Your task to perform on an android device: stop showing notifications on the lock screen Image 0: 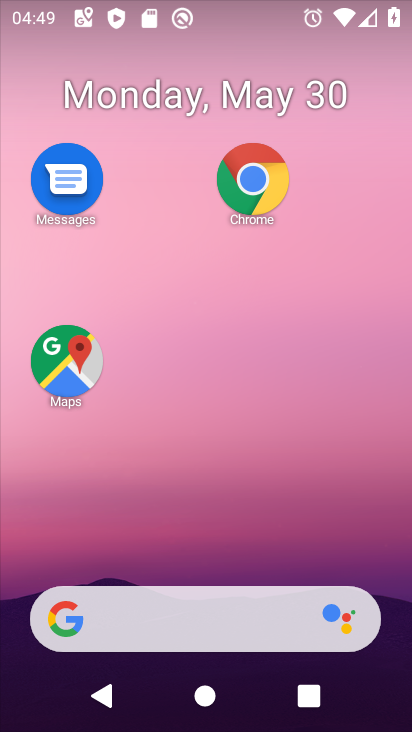
Step 0: drag from (166, 539) to (254, 0)
Your task to perform on an android device: stop showing notifications on the lock screen Image 1: 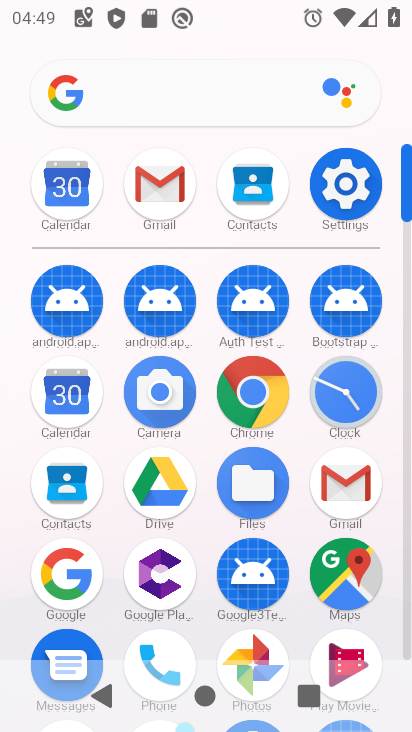
Step 1: click (345, 195)
Your task to perform on an android device: stop showing notifications on the lock screen Image 2: 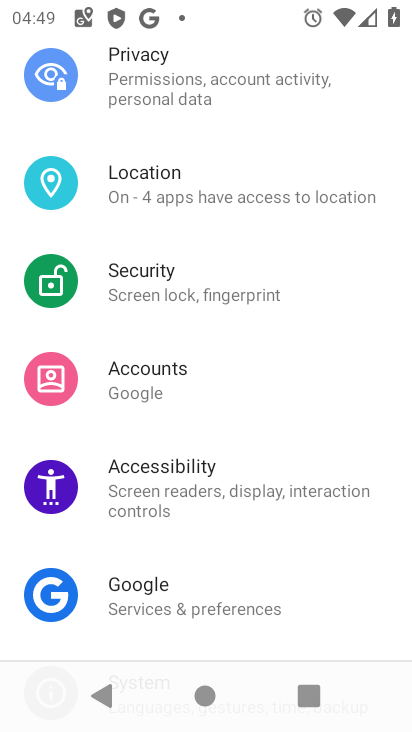
Step 2: drag from (254, 175) to (165, 638)
Your task to perform on an android device: stop showing notifications on the lock screen Image 3: 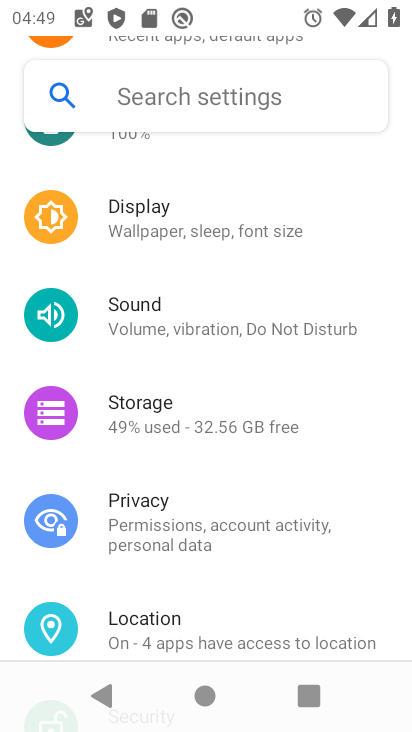
Step 3: drag from (175, 290) to (144, 641)
Your task to perform on an android device: stop showing notifications on the lock screen Image 4: 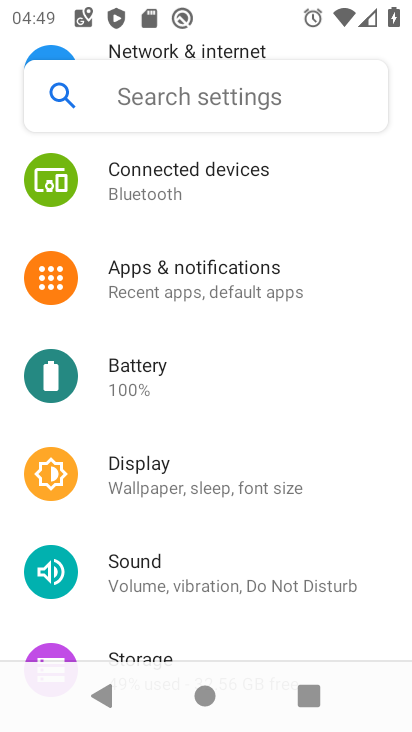
Step 4: click (178, 255)
Your task to perform on an android device: stop showing notifications on the lock screen Image 5: 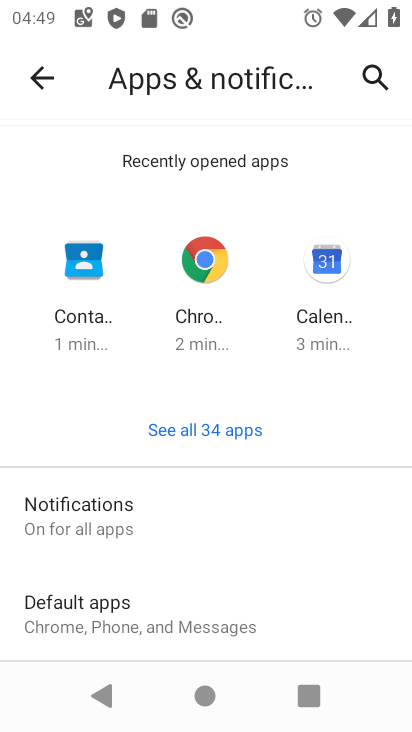
Step 5: click (81, 531)
Your task to perform on an android device: stop showing notifications on the lock screen Image 6: 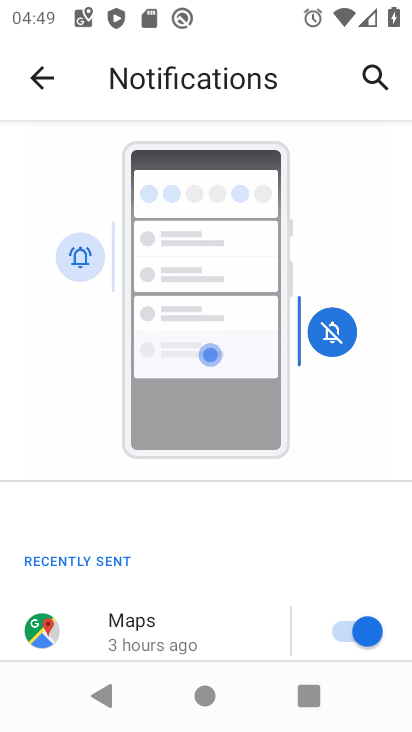
Step 6: drag from (98, 602) to (186, 213)
Your task to perform on an android device: stop showing notifications on the lock screen Image 7: 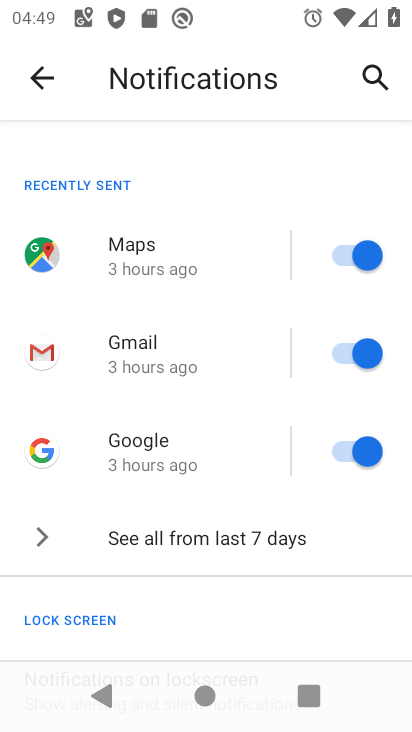
Step 7: drag from (159, 643) to (208, 289)
Your task to perform on an android device: stop showing notifications on the lock screen Image 8: 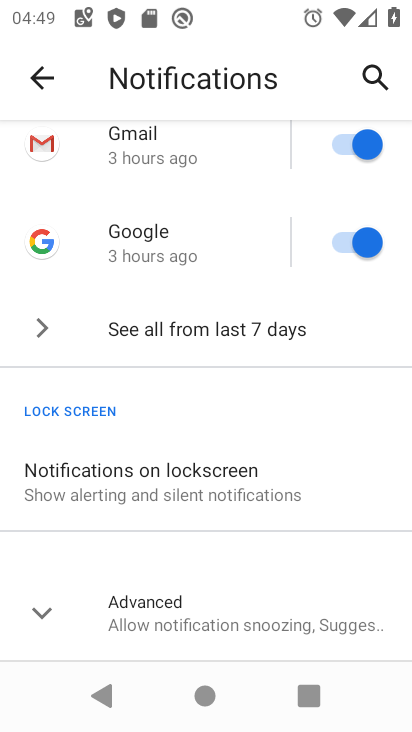
Step 8: click (149, 502)
Your task to perform on an android device: stop showing notifications on the lock screen Image 9: 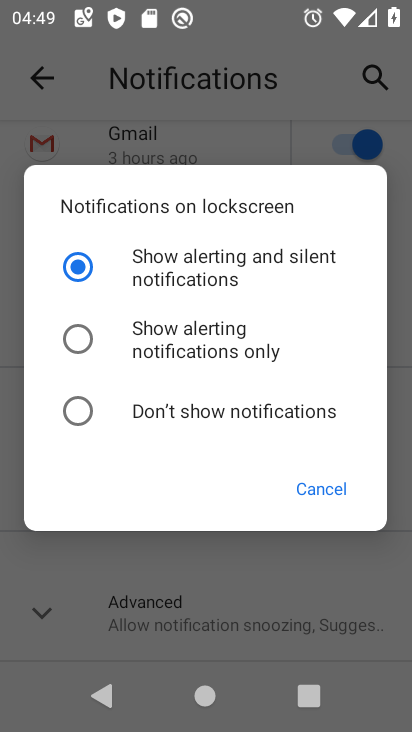
Step 9: click (74, 404)
Your task to perform on an android device: stop showing notifications on the lock screen Image 10: 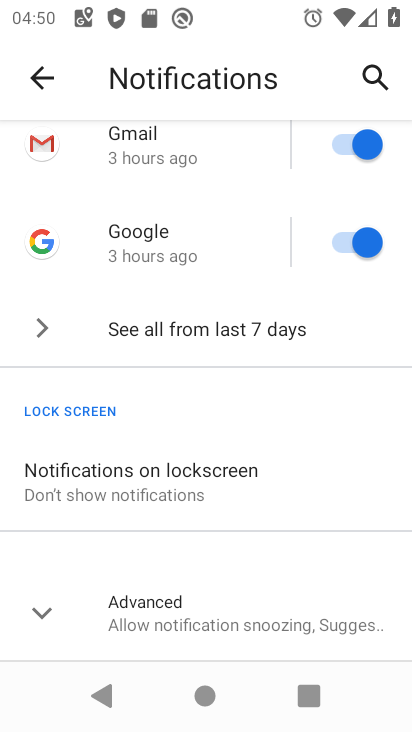
Step 10: task complete